Your task to perform on an android device: What's on my calendar tomorrow? Image 0: 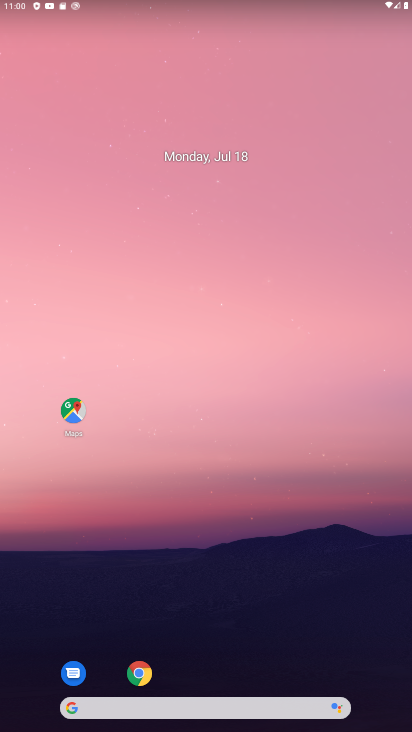
Step 0: press home button
Your task to perform on an android device: What's on my calendar tomorrow? Image 1: 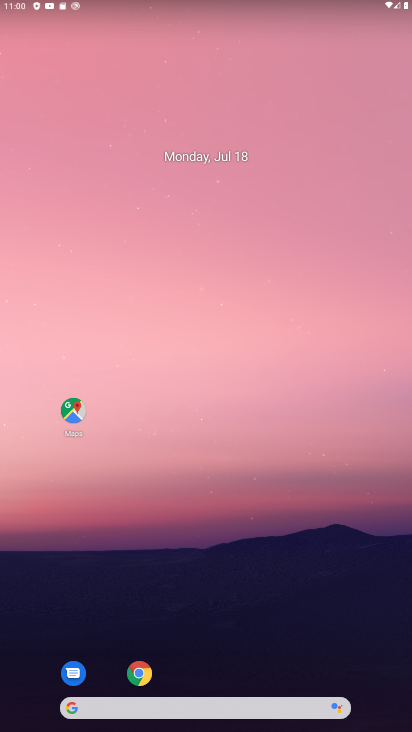
Step 1: drag from (205, 673) to (244, 9)
Your task to perform on an android device: What's on my calendar tomorrow? Image 2: 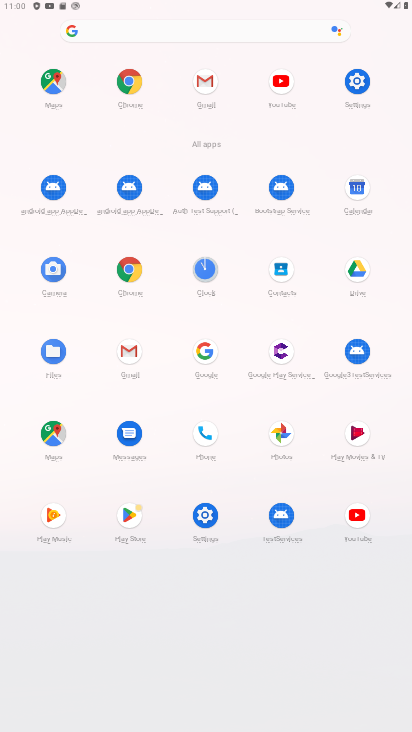
Step 2: click (357, 190)
Your task to perform on an android device: What's on my calendar tomorrow? Image 3: 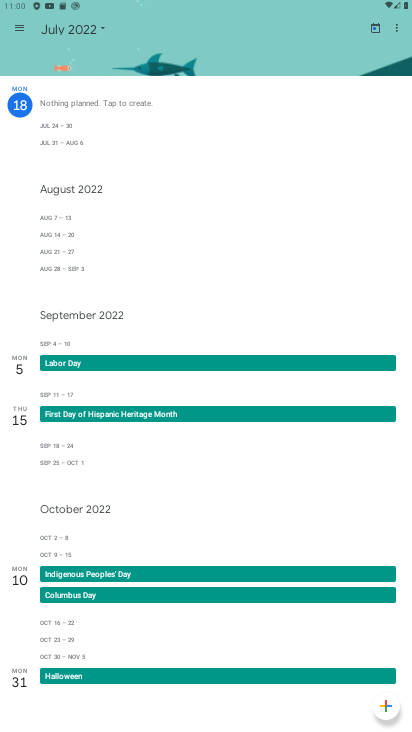
Step 3: click (31, 103)
Your task to perform on an android device: What's on my calendar tomorrow? Image 4: 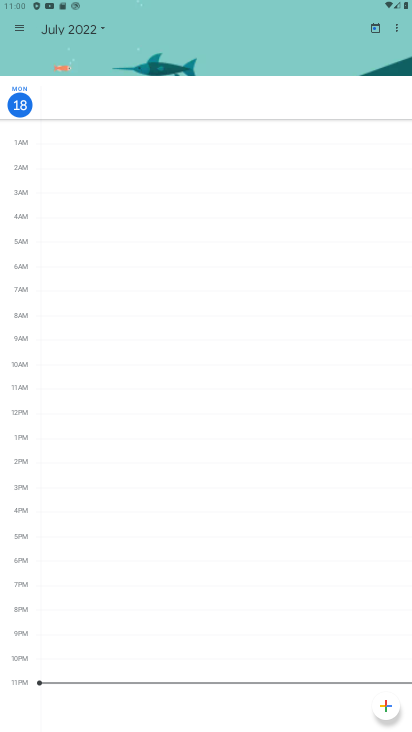
Step 4: click (32, 107)
Your task to perform on an android device: What's on my calendar tomorrow? Image 5: 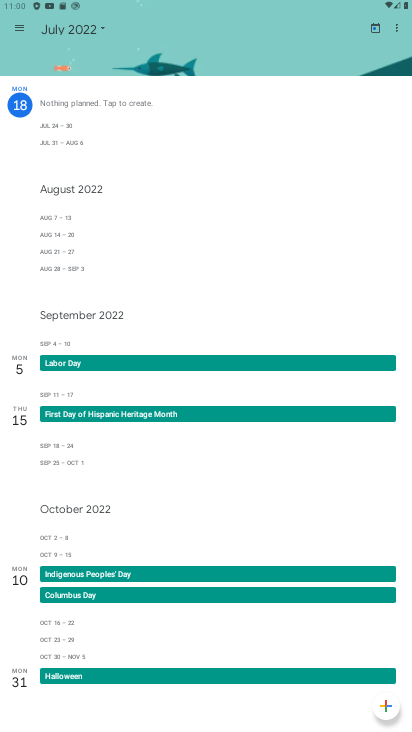
Step 5: click (102, 24)
Your task to perform on an android device: What's on my calendar tomorrow? Image 6: 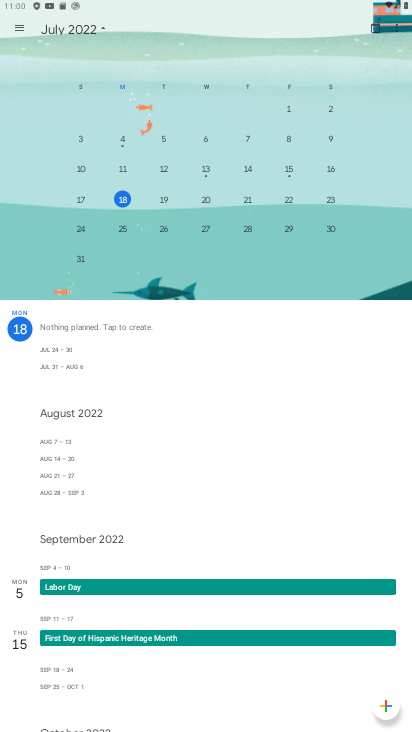
Step 6: click (159, 195)
Your task to perform on an android device: What's on my calendar tomorrow? Image 7: 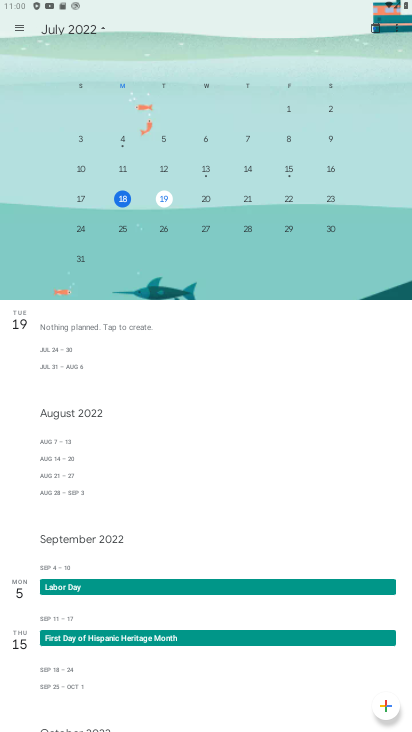
Step 7: click (21, 323)
Your task to perform on an android device: What's on my calendar tomorrow? Image 8: 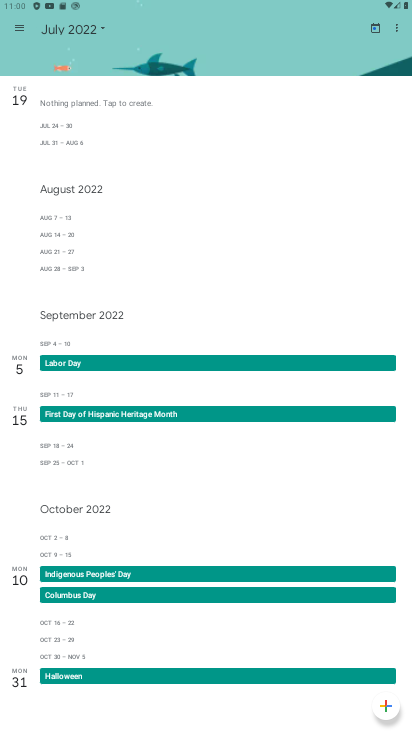
Step 8: click (25, 97)
Your task to perform on an android device: What's on my calendar tomorrow? Image 9: 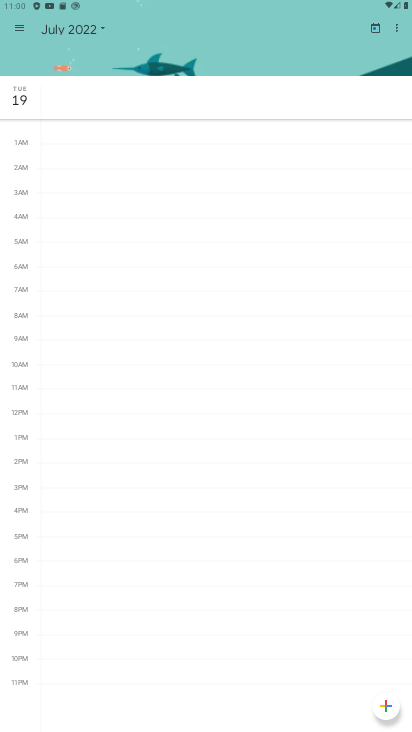
Step 9: task complete